Your task to perform on an android device: allow notifications from all sites in the chrome app Image 0: 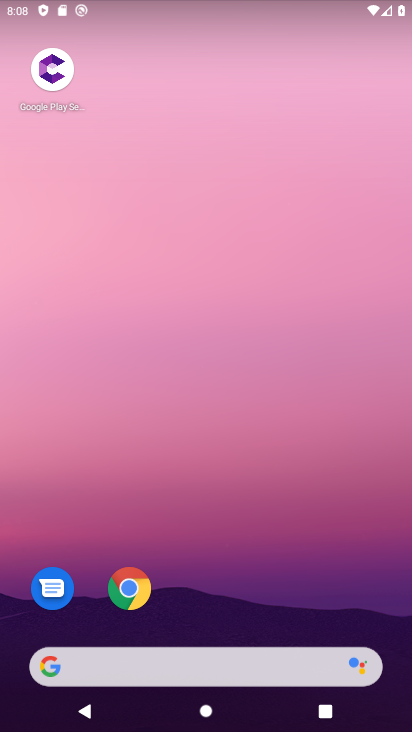
Step 0: click (119, 591)
Your task to perform on an android device: allow notifications from all sites in the chrome app Image 1: 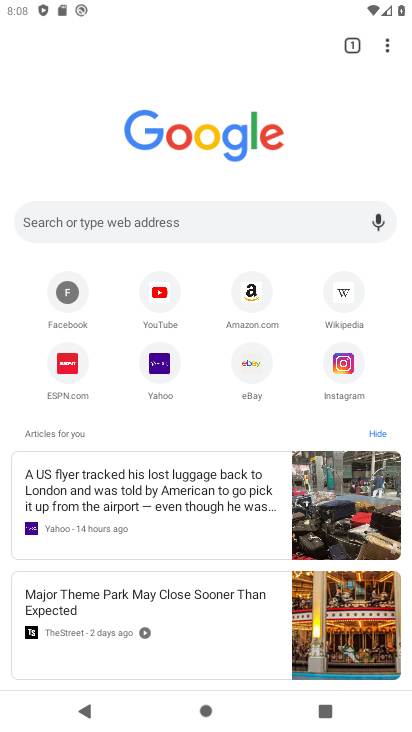
Step 1: click (398, 53)
Your task to perform on an android device: allow notifications from all sites in the chrome app Image 2: 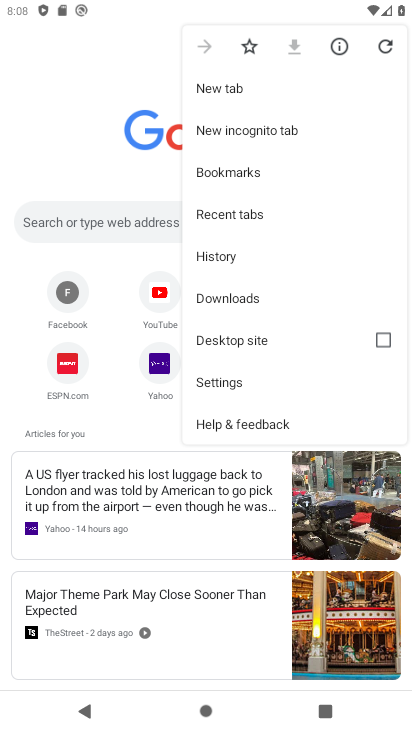
Step 2: click (250, 380)
Your task to perform on an android device: allow notifications from all sites in the chrome app Image 3: 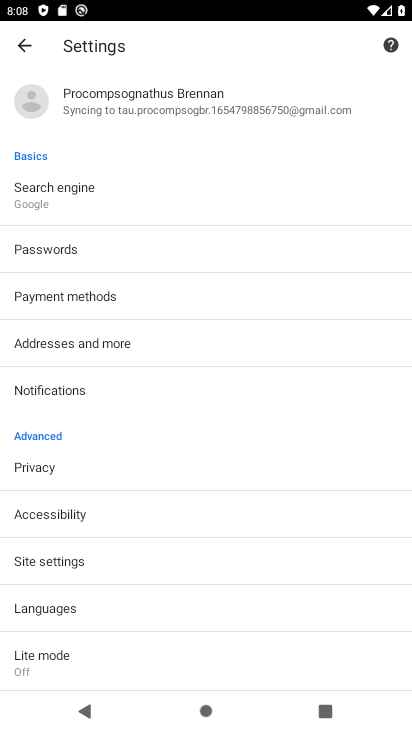
Step 3: click (79, 390)
Your task to perform on an android device: allow notifications from all sites in the chrome app Image 4: 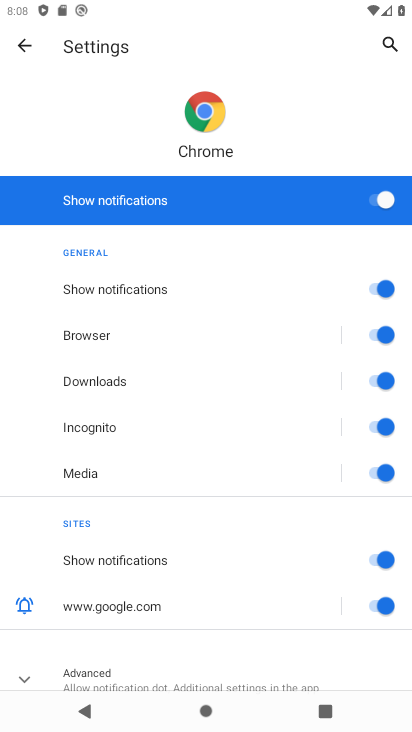
Step 4: task complete